Your task to perform on an android device: change text size in settings app Image 0: 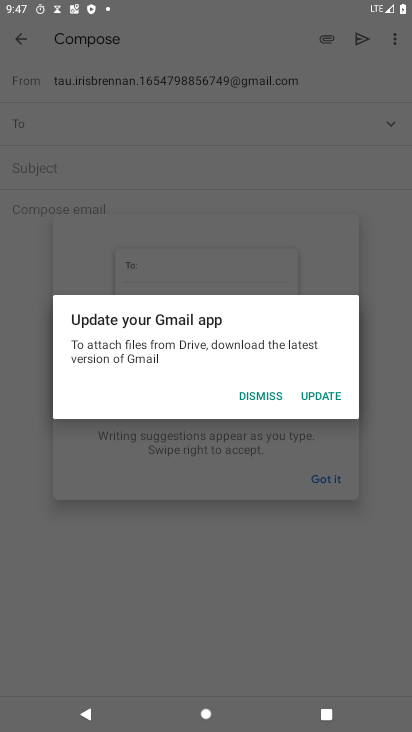
Step 0: press home button
Your task to perform on an android device: change text size in settings app Image 1: 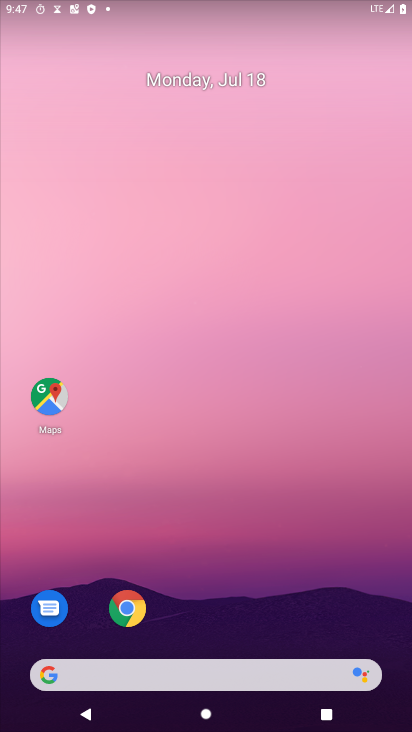
Step 1: click (233, 34)
Your task to perform on an android device: change text size in settings app Image 2: 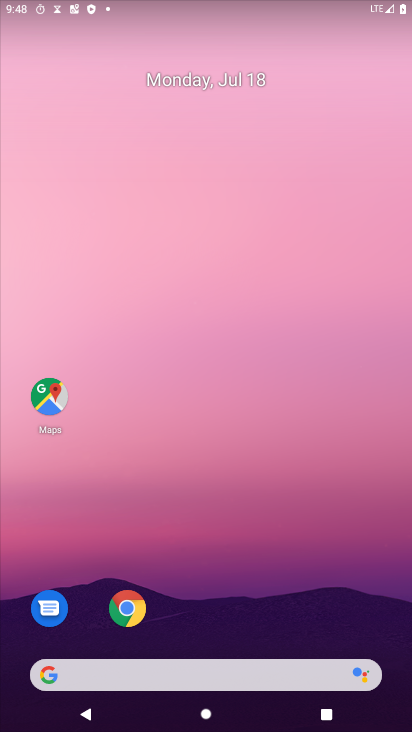
Step 2: click (195, 75)
Your task to perform on an android device: change text size in settings app Image 3: 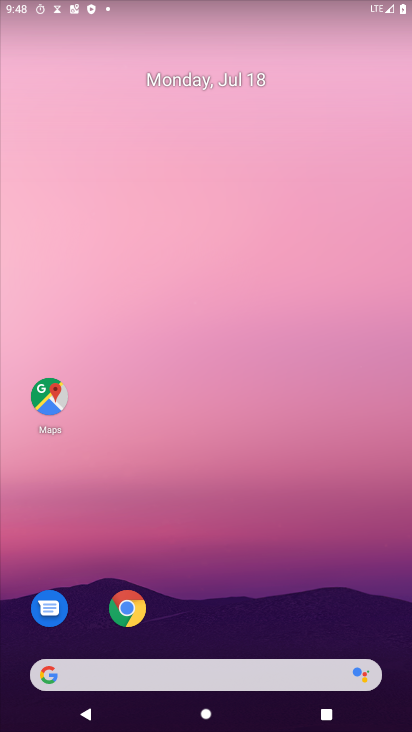
Step 3: drag from (194, 390) to (195, 176)
Your task to perform on an android device: change text size in settings app Image 4: 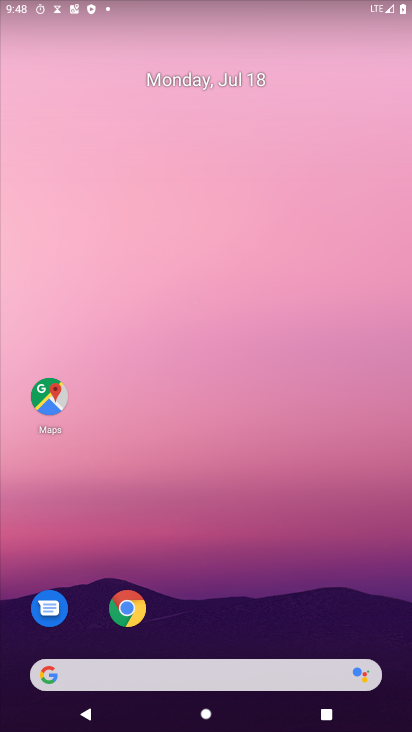
Step 4: drag from (223, 618) to (256, 117)
Your task to perform on an android device: change text size in settings app Image 5: 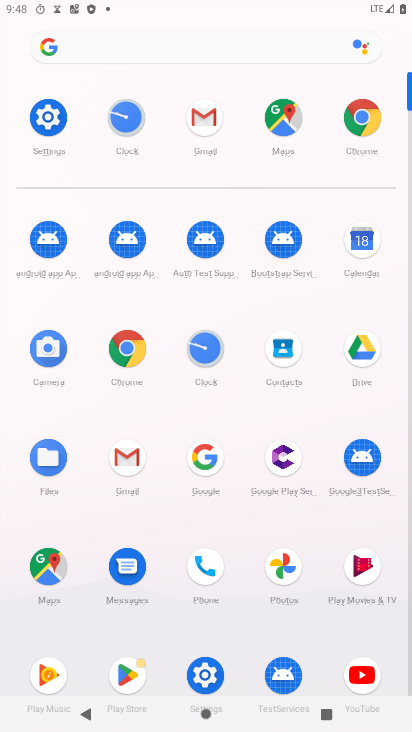
Step 5: click (40, 113)
Your task to perform on an android device: change text size in settings app Image 6: 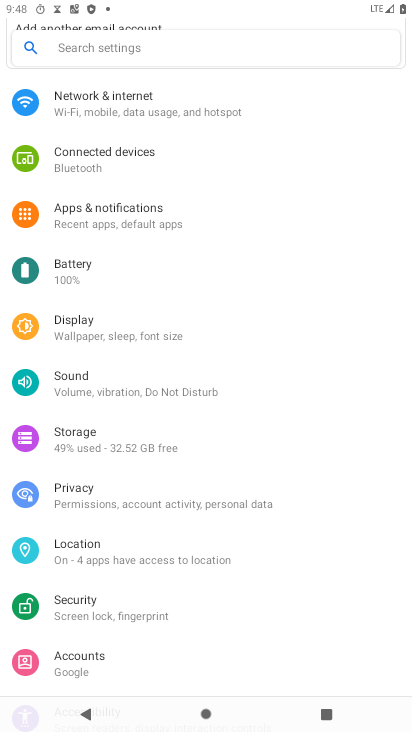
Step 6: click (72, 329)
Your task to perform on an android device: change text size in settings app Image 7: 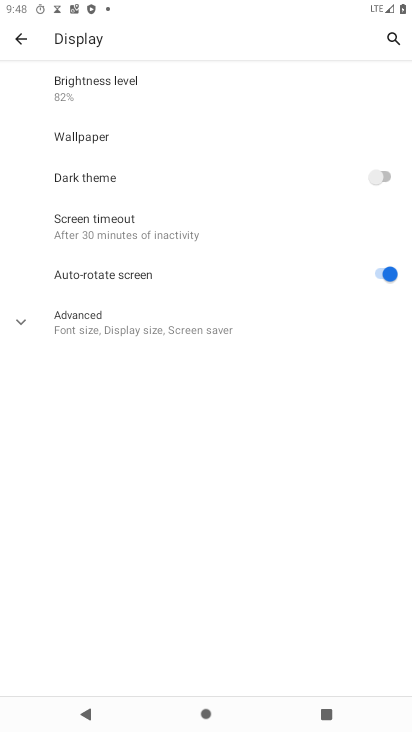
Step 7: click (92, 314)
Your task to perform on an android device: change text size in settings app Image 8: 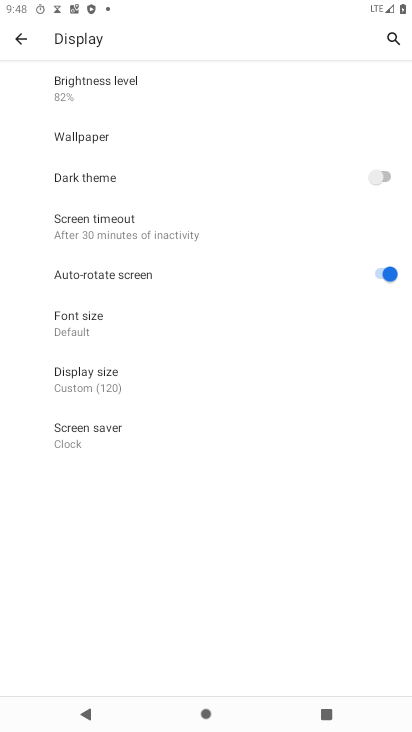
Step 8: click (78, 322)
Your task to perform on an android device: change text size in settings app Image 9: 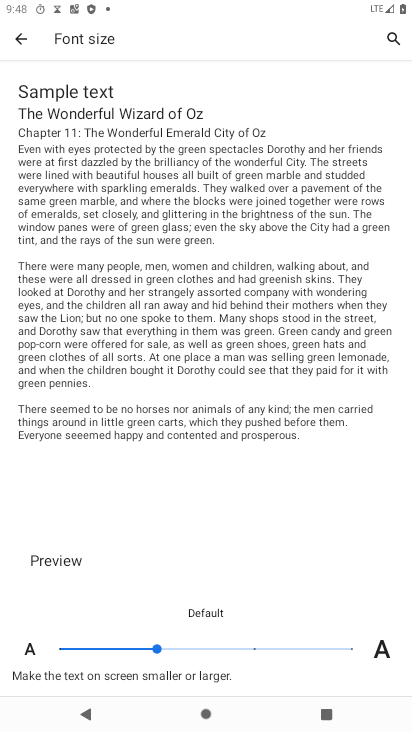
Step 9: click (247, 648)
Your task to perform on an android device: change text size in settings app Image 10: 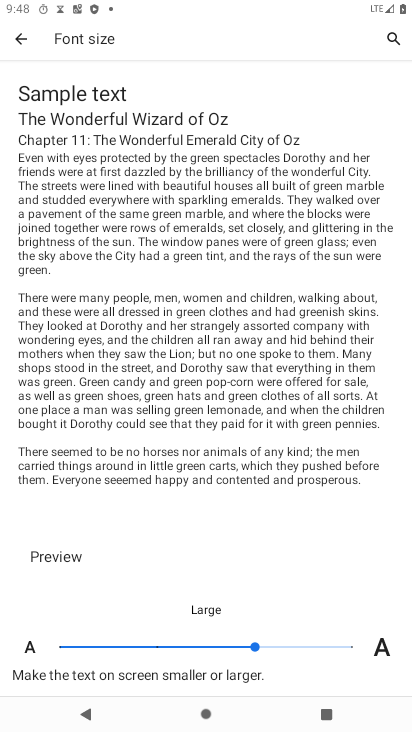
Step 10: task complete